Your task to perform on an android device: Find coffee shops on Maps Image 0: 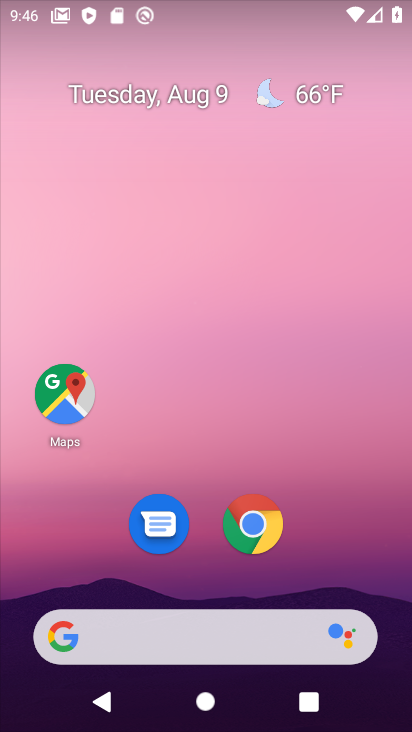
Step 0: click (54, 407)
Your task to perform on an android device: Find coffee shops on Maps Image 1: 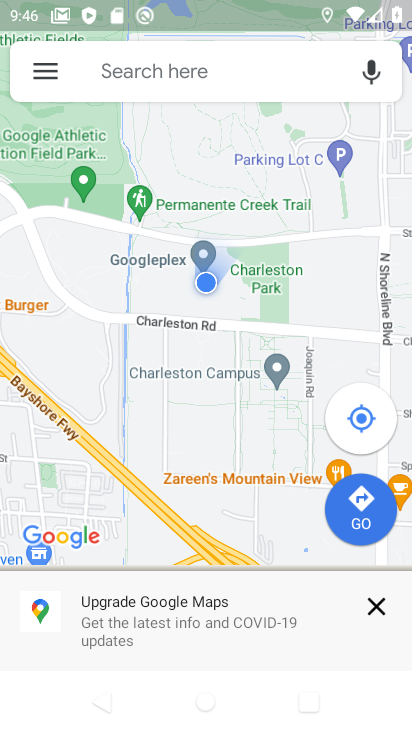
Step 1: click (194, 63)
Your task to perform on an android device: Find coffee shops on Maps Image 2: 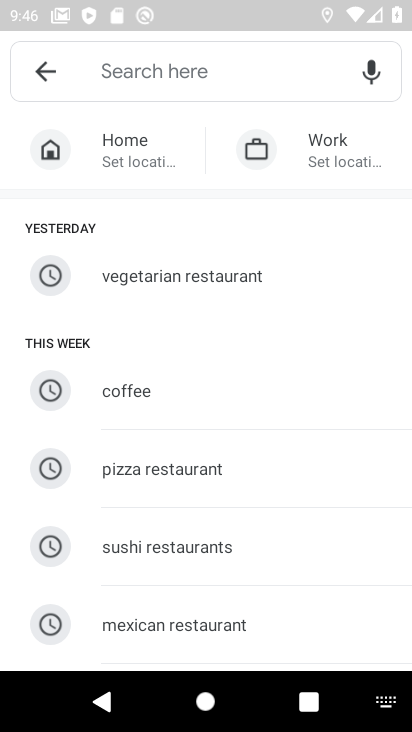
Step 2: click (131, 410)
Your task to perform on an android device: Find coffee shops on Maps Image 3: 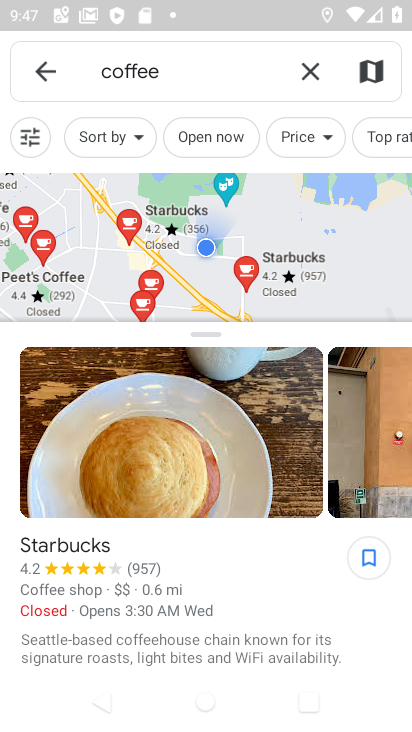
Step 3: task complete